Your task to perform on an android device: turn on javascript in the chrome app Image 0: 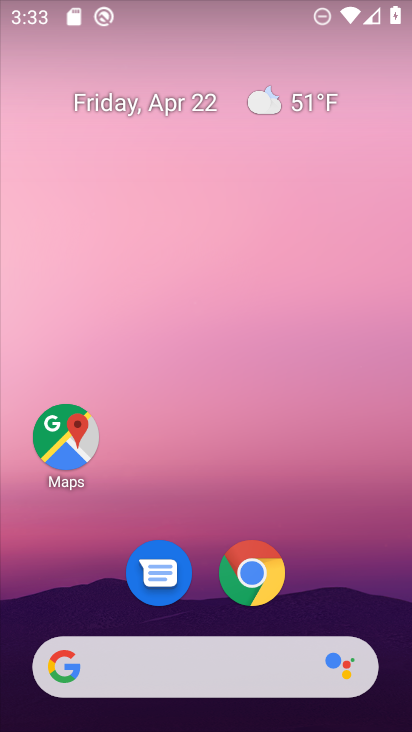
Step 0: click (261, 580)
Your task to perform on an android device: turn on javascript in the chrome app Image 1: 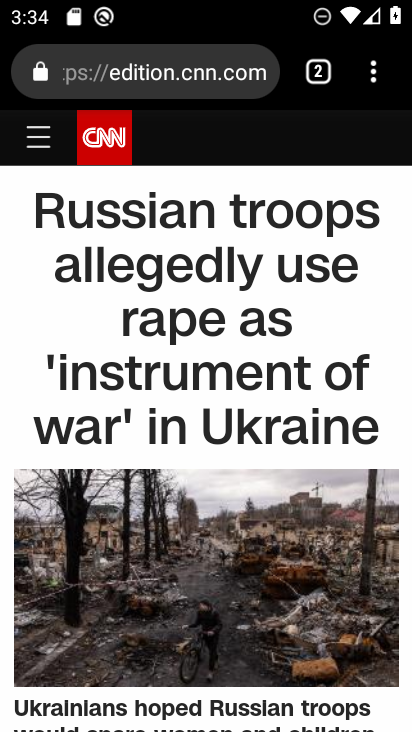
Step 1: click (368, 64)
Your task to perform on an android device: turn on javascript in the chrome app Image 2: 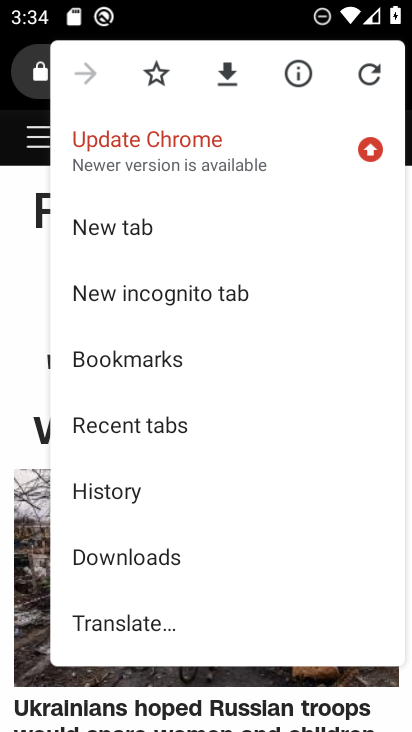
Step 2: drag from (221, 541) to (212, 169)
Your task to perform on an android device: turn on javascript in the chrome app Image 3: 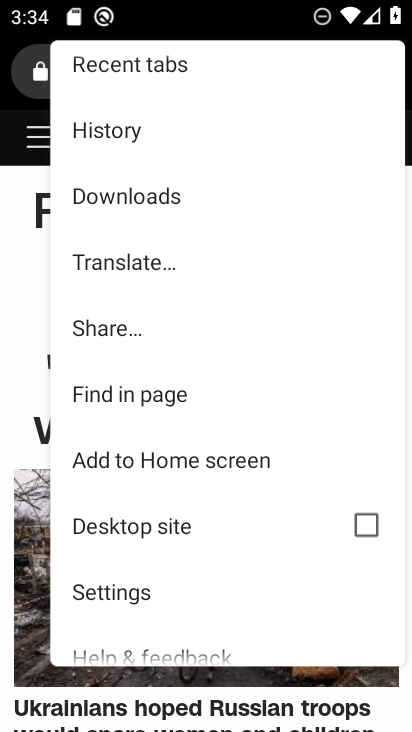
Step 3: drag from (205, 555) to (256, 140)
Your task to perform on an android device: turn on javascript in the chrome app Image 4: 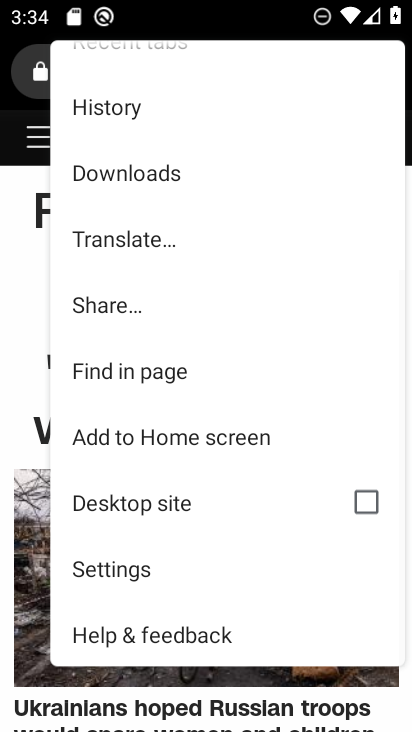
Step 4: click (169, 579)
Your task to perform on an android device: turn on javascript in the chrome app Image 5: 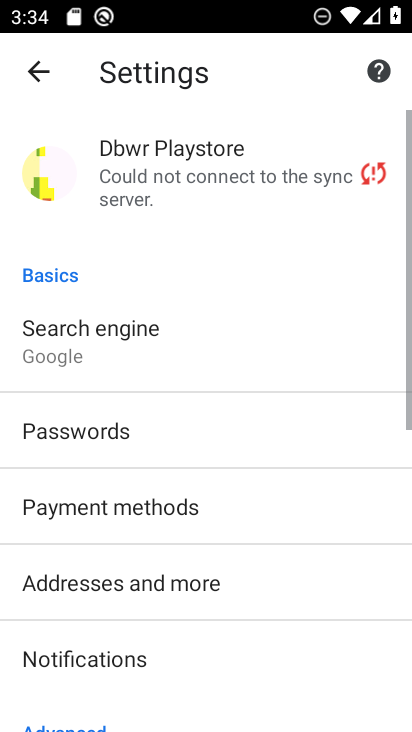
Step 5: drag from (247, 592) to (330, 129)
Your task to perform on an android device: turn on javascript in the chrome app Image 6: 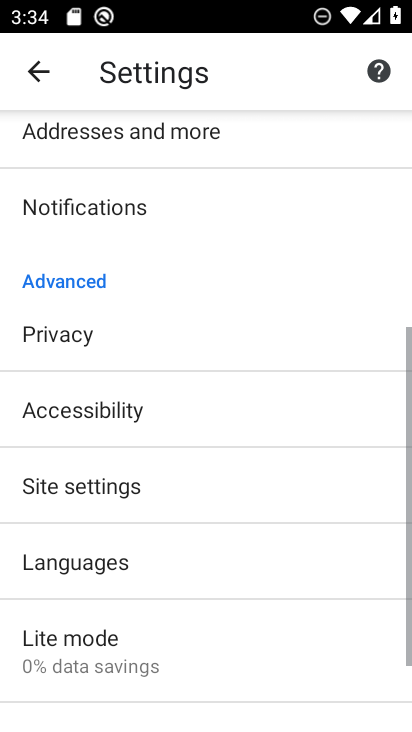
Step 6: click (174, 502)
Your task to perform on an android device: turn on javascript in the chrome app Image 7: 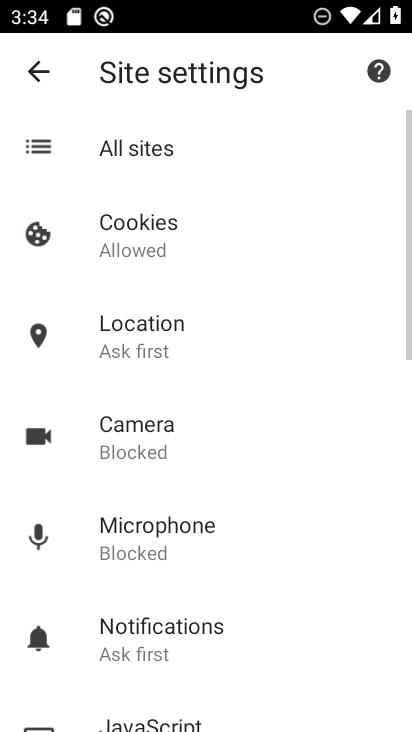
Step 7: drag from (260, 626) to (283, 243)
Your task to perform on an android device: turn on javascript in the chrome app Image 8: 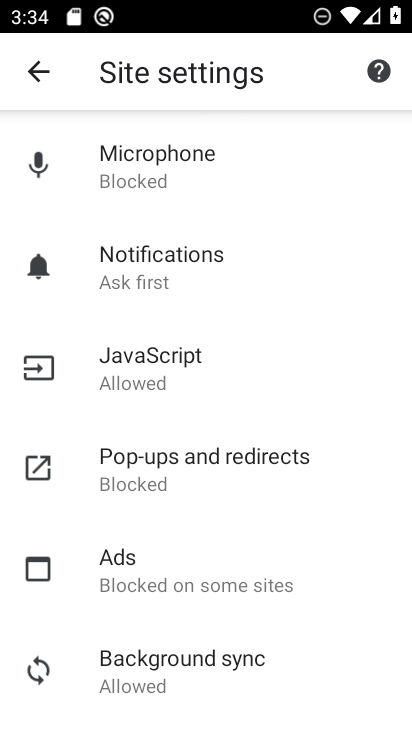
Step 8: click (210, 375)
Your task to perform on an android device: turn on javascript in the chrome app Image 9: 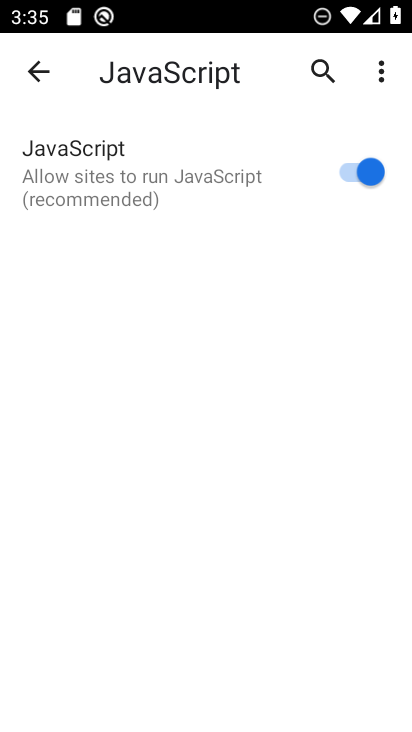
Step 9: task complete